Your task to perform on an android device: Go to wifi settings Image 0: 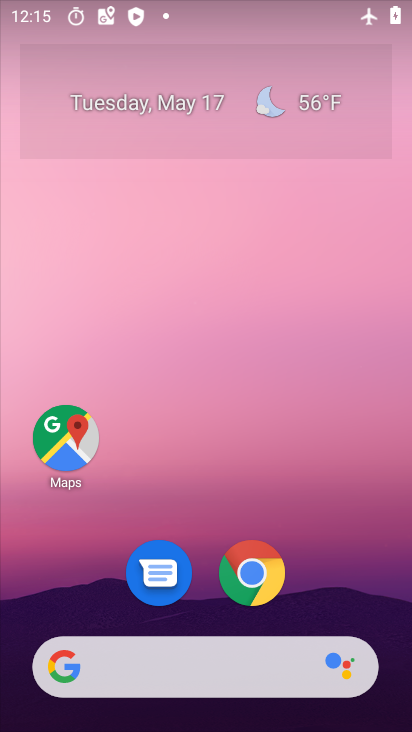
Step 0: drag from (253, 706) to (302, 117)
Your task to perform on an android device: Go to wifi settings Image 1: 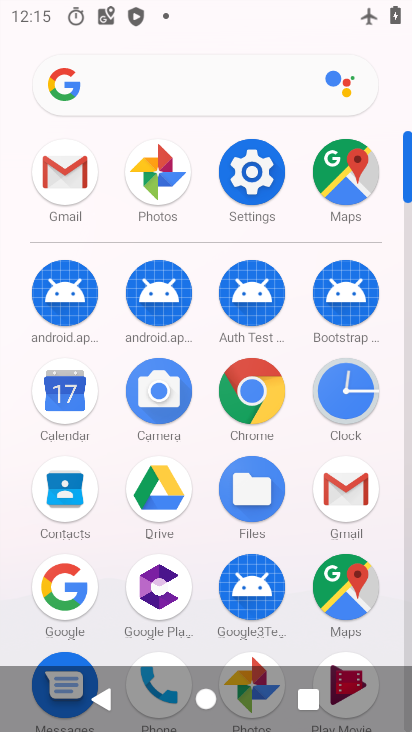
Step 1: click (248, 177)
Your task to perform on an android device: Go to wifi settings Image 2: 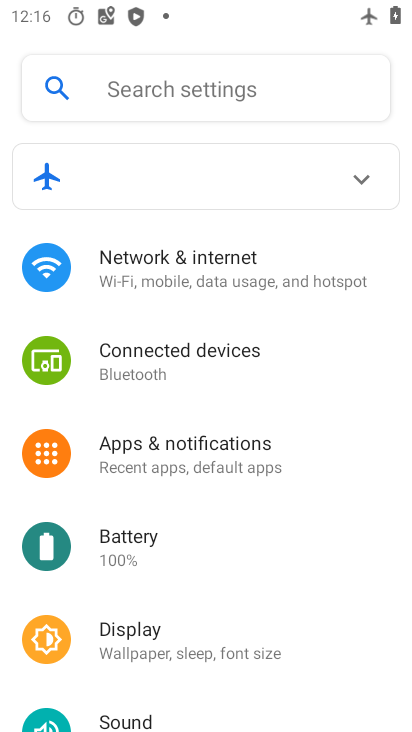
Step 2: click (265, 274)
Your task to perform on an android device: Go to wifi settings Image 3: 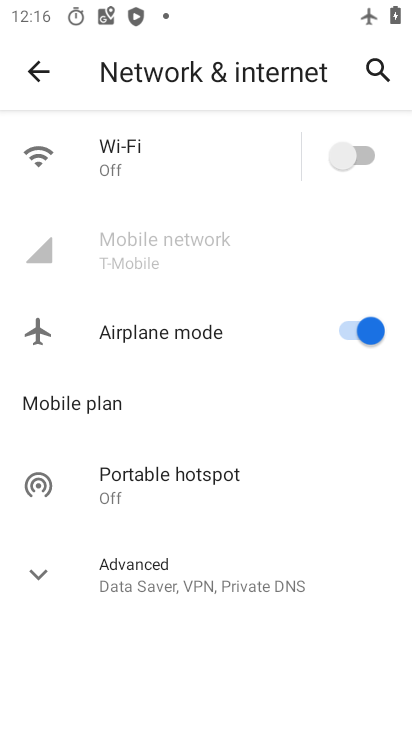
Step 3: click (203, 164)
Your task to perform on an android device: Go to wifi settings Image 4: 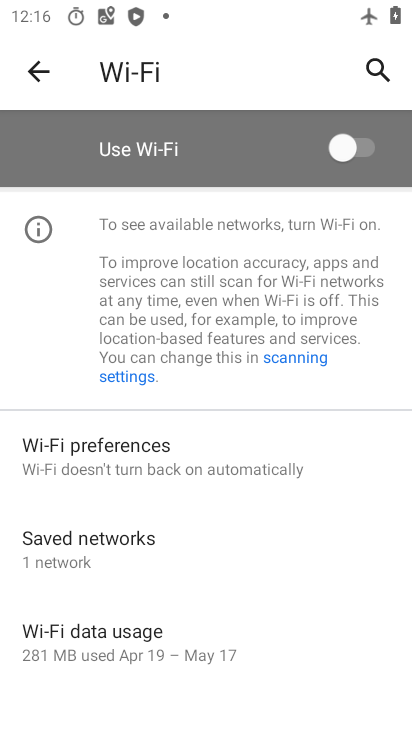
Step 4: task complete